Your task to perform on an android device: Open Yahoo.com Image 0: 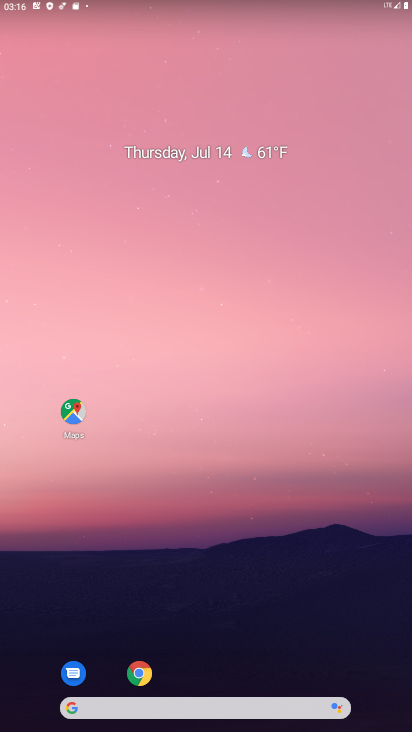
Step 0: click (140, 672)
Your task to perform on an android device: Open Yahoo.com Image 1: 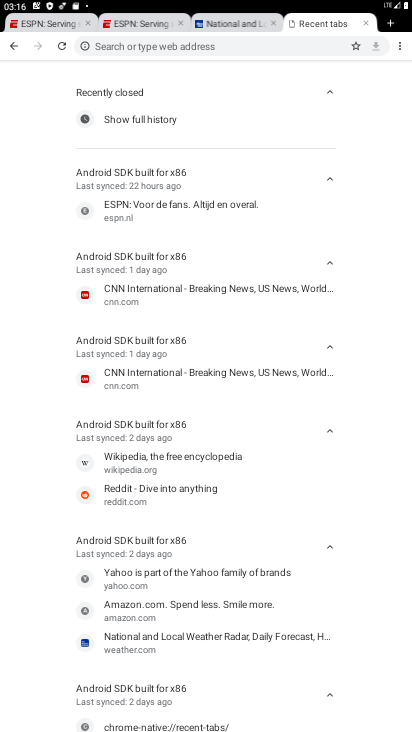
Step 1: click (364, 24)
Your task to perform on an android device: Open Yahoo.com Image 2: 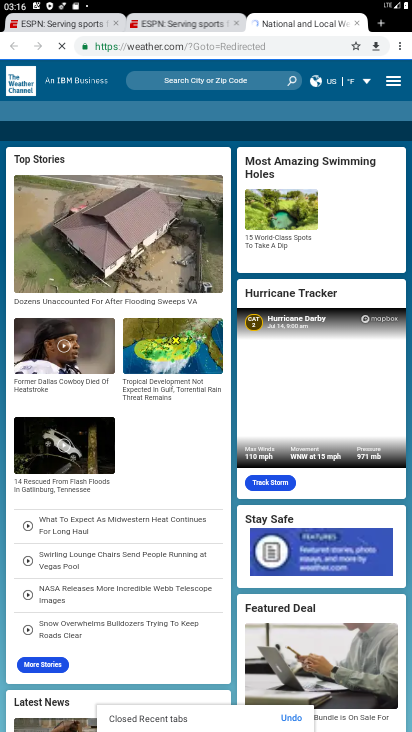
Step 2: click (296, 20)
Your task to perform on an android device: Open Yahoo.com Image 3: 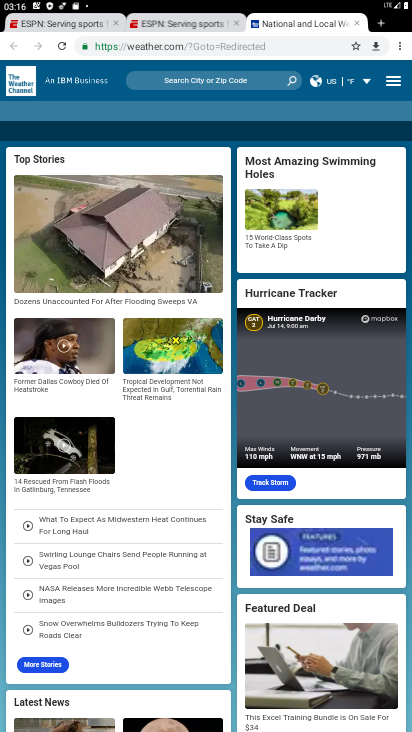
Step 3: click (378, 26)
Your task to perform on an android device: Open Yahoo.com Image 4: 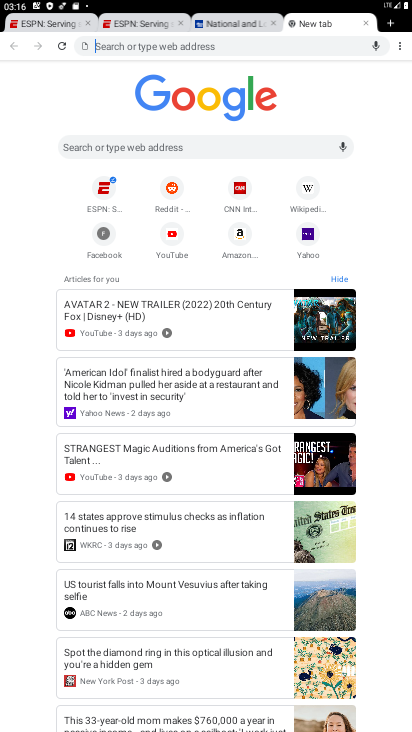
Step 4: click (310, 236)
Your task to perform on an android device: Open Yahoo.com Image 5: 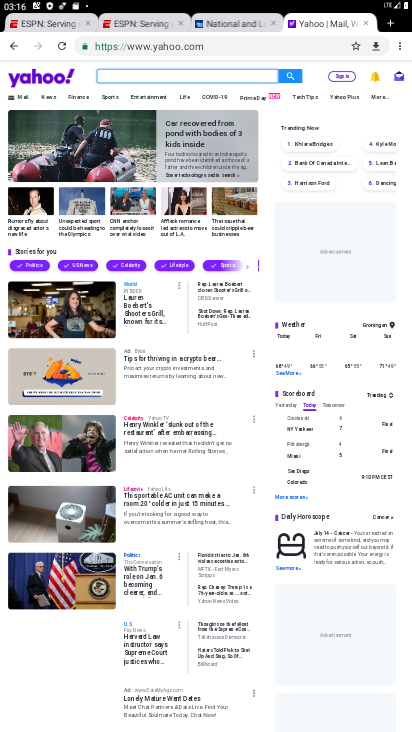
Step 5: task complete